Your task to perform on an android device: turn on data saver in the chrome app Image 0: 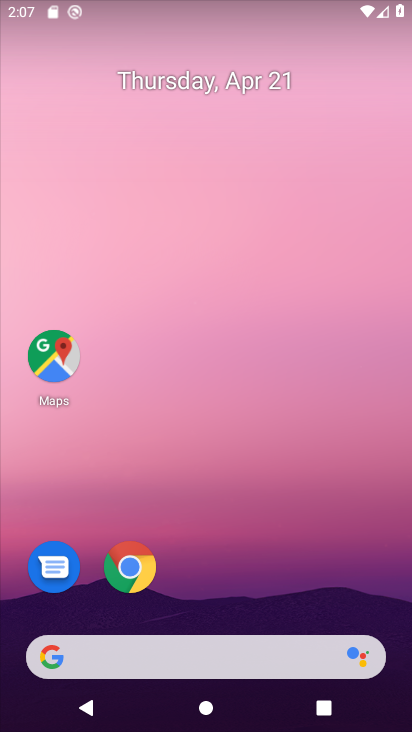
Step 0: click (129, 567)
Your task to perform on an android device: turn on data saver in the chrome app Image 1: 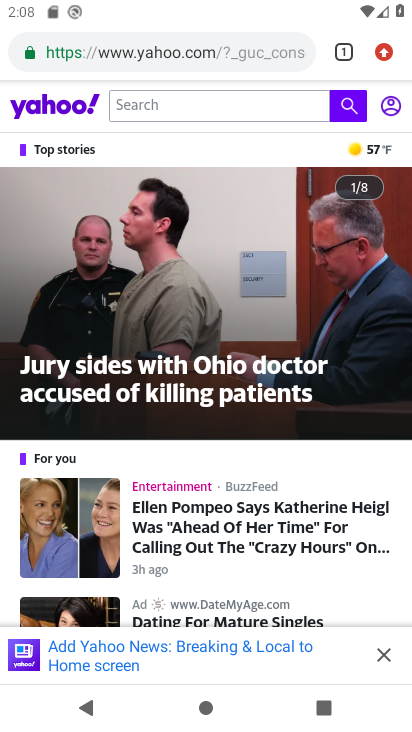
Step 1: drag from (379, 55) to (217, 602)
Your task to perform on an android device: turn on data saver in the chrome app Image 2: 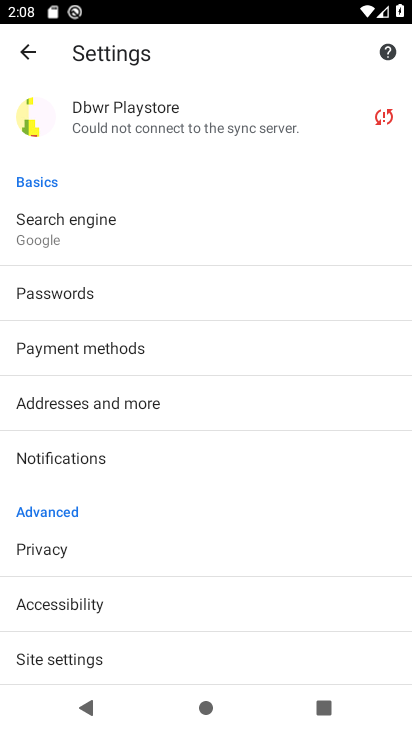
Step 2: drag from (240, 511) to (274, 148)
Your task to perform on an android device: turn on data saver in the chrome app Image 3: 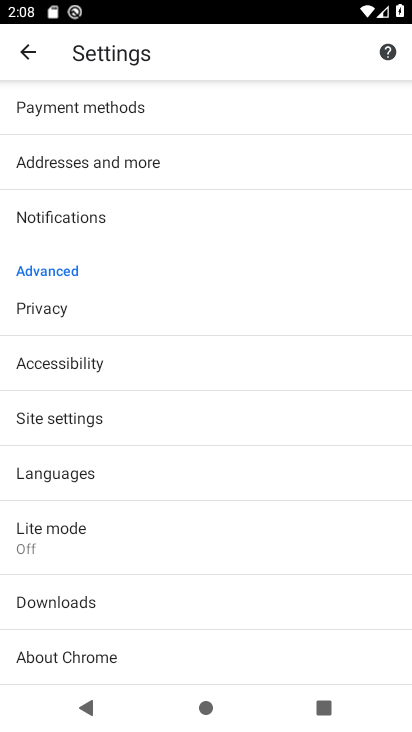
Step 3: drag from (232, 502) to (235, 211)
Your task to perform on an android device: turn on data saver in the chrome app Image 4: 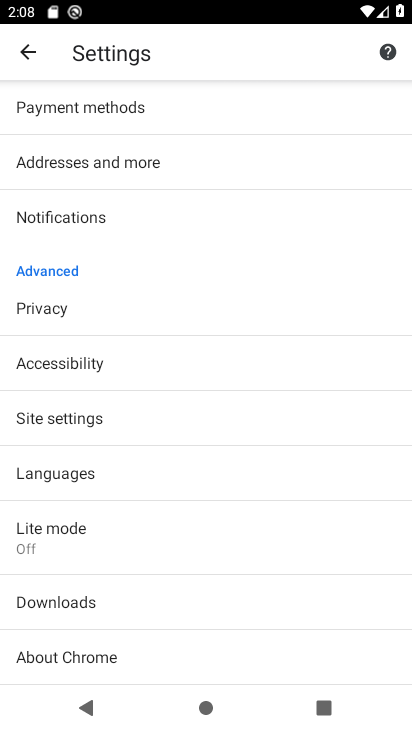
Step 4: drag from (247, 556) to (263, 268)
Your task to perform on an android device: turn on data saver in the chrome app Image 5: 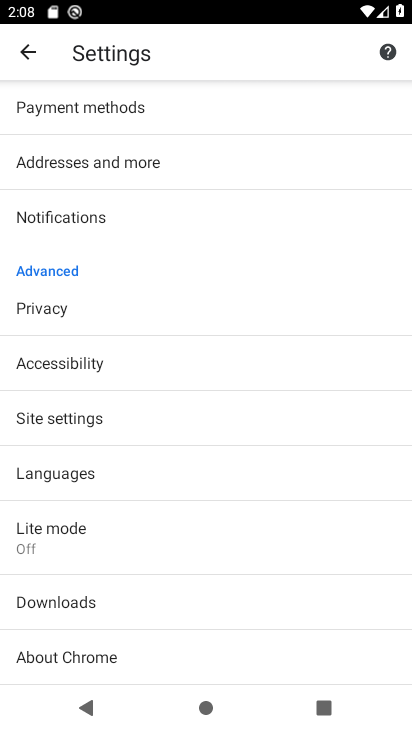
Step 5: drag from (224, 515) to (233, 227)
Your task to perform on an android device: turn on data saver in the chrome app Image 6: 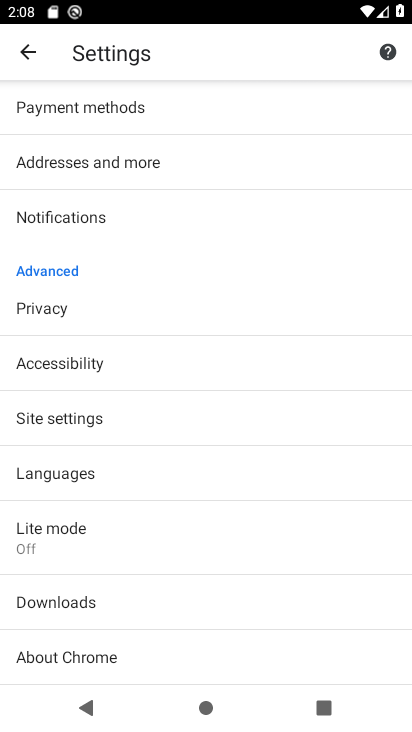
Step 6: click (119, 530)
Your task to perform on an android device: turn on data saver in the chrome app Image 7: 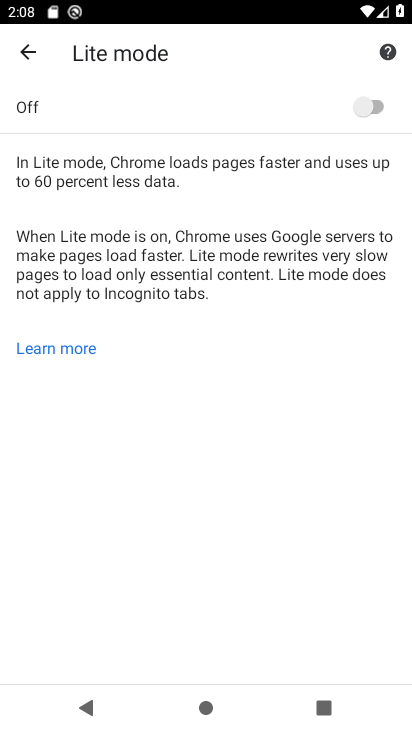
Step 7: click (382, 100)
Your task to perform on an android device: turn on data saver in the chrome app Image 8: 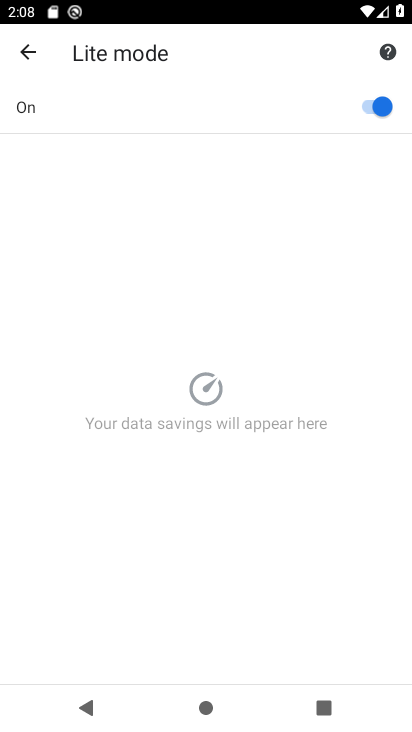
Step 8: task complete